Your task to perform on an android device: turn off picture-in-picture Image 0: 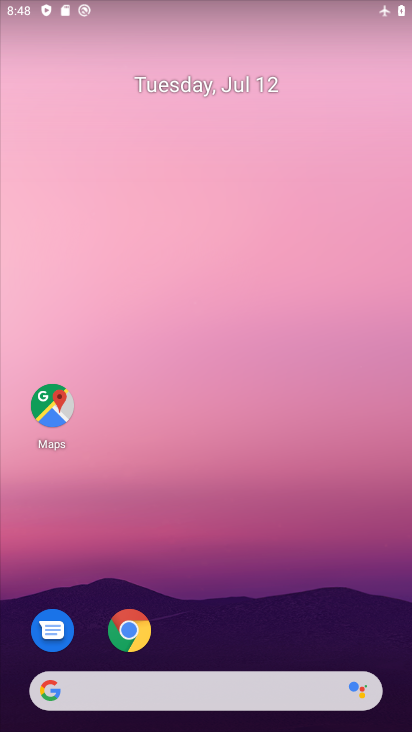
Step 0: click (137, 641)
Your task to perform on an android device: turn off picture-in-picture Image 1: 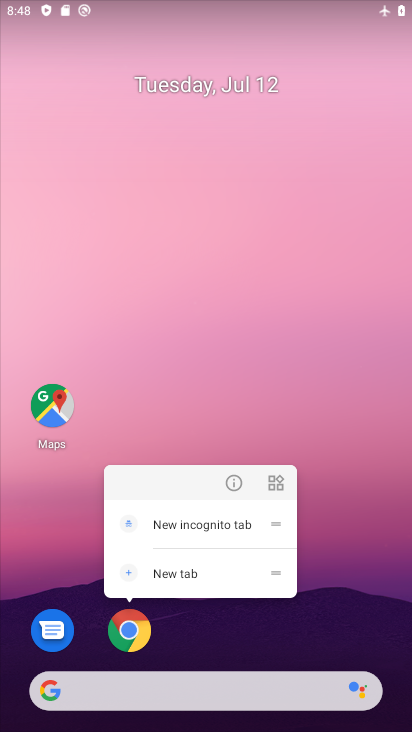
Step 1: click (234, 484)
Your task to perform on an android device: turn off picture-in-picture Image 2: 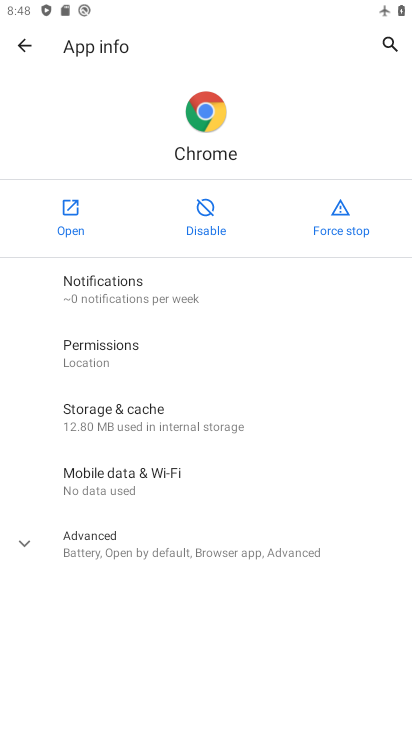
Step 2: click (22, 544)
Your task to perform on an android device: turn off picture-in-picture Image 3: 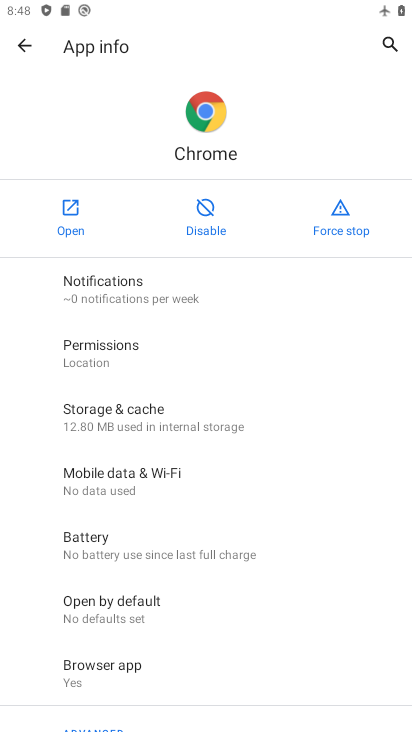
Step 3: drag from (236, 642) to (216, 240)
Your task to perform on an android device: turn off picture-in-picture Image 4: 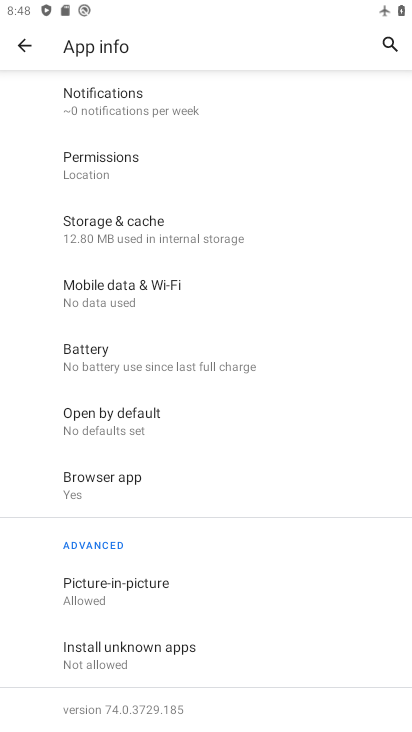
Step 4: click (151, 579)
Your task to perform on an android device: turn off picture-in-picture Image 5: 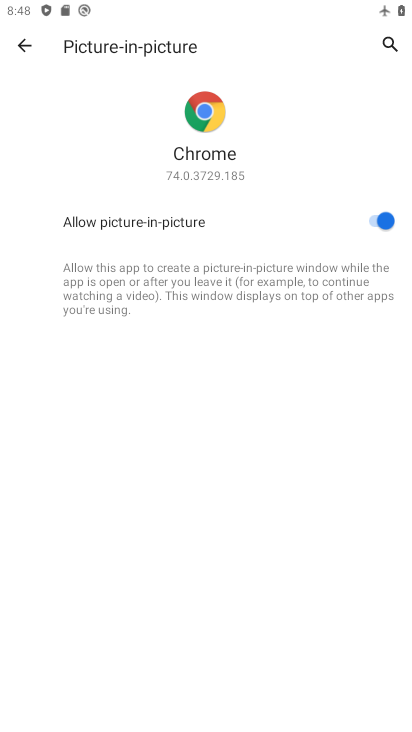
Step 5: click (374, 221)
Your task to perform on an android device: turn off picture-in-picture Image 6: 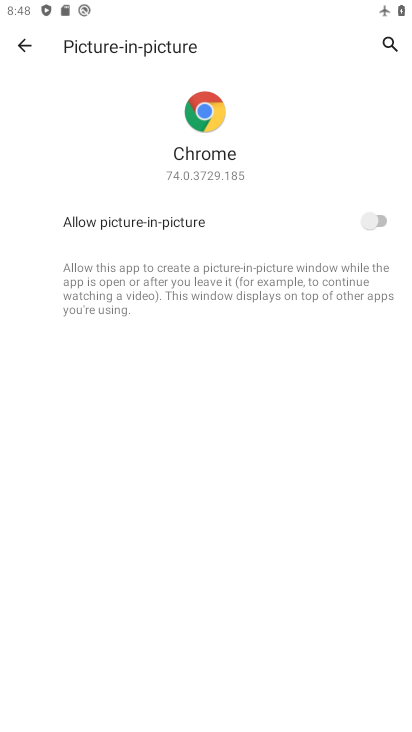
Step 6: task complete